Your task to perform on an android device: What's the weather going to be this weekend? Image 0: 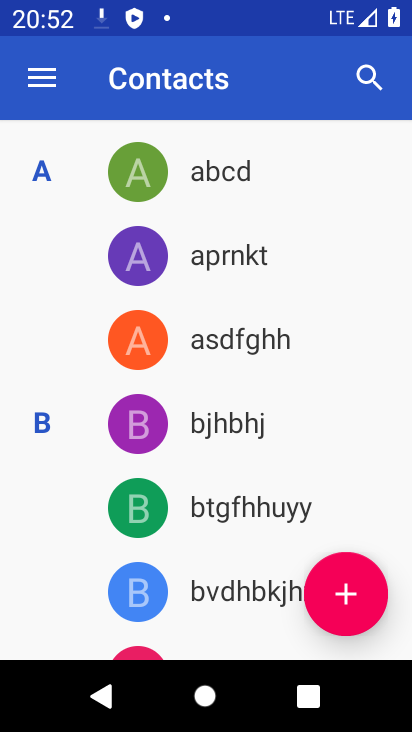
Step 0: press back button
Your task to perform on an android device: What's the weather going to be this weekend? Image 1: 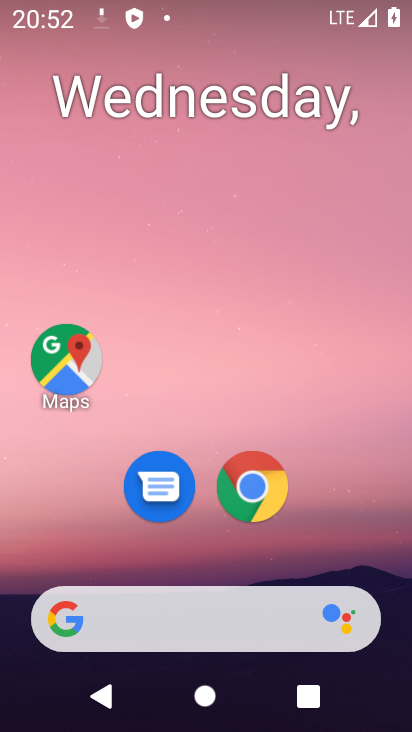
Step 1: click (177, 623)
Your task to perform on an android device: What's the weather going to be this weekend? Image 2: 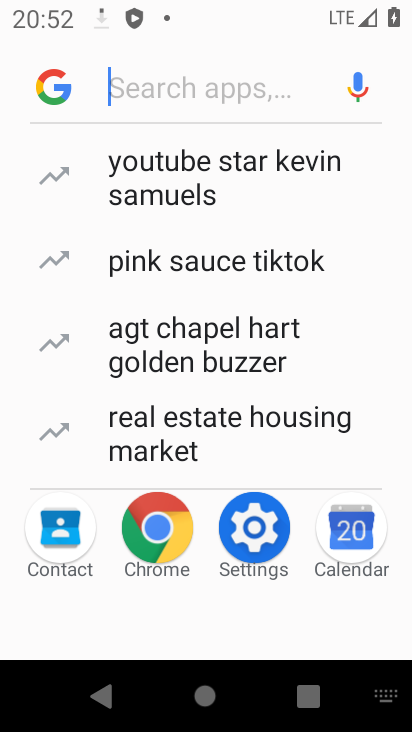
Step 2: click (167, 98)
Your task to perform on an android device: What's the weather going to be this weekend? Image 3: 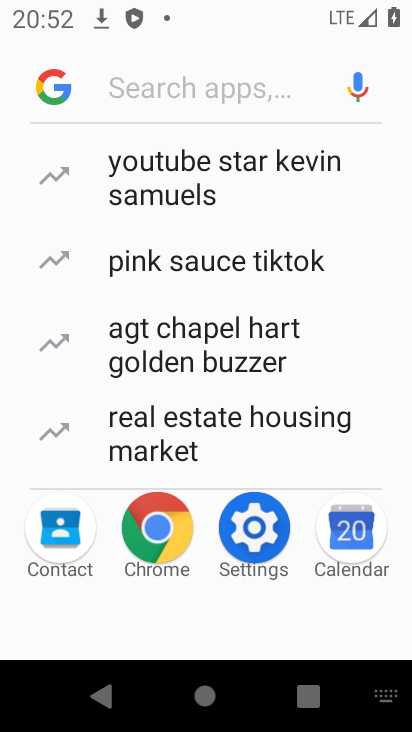
Step 3: type "weather"
Your task to perform on an android device: What's the weather going to be this weekend? Image 4: 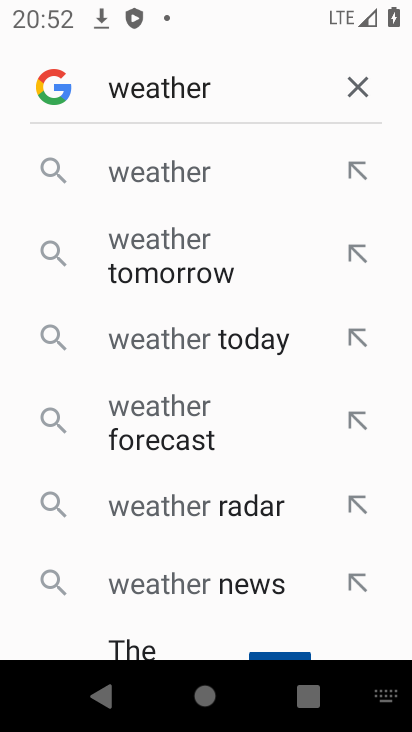
Step 4: click (200, 164)
Your task to perform on an android device: What's the weather going to be this weekend? Image 5: 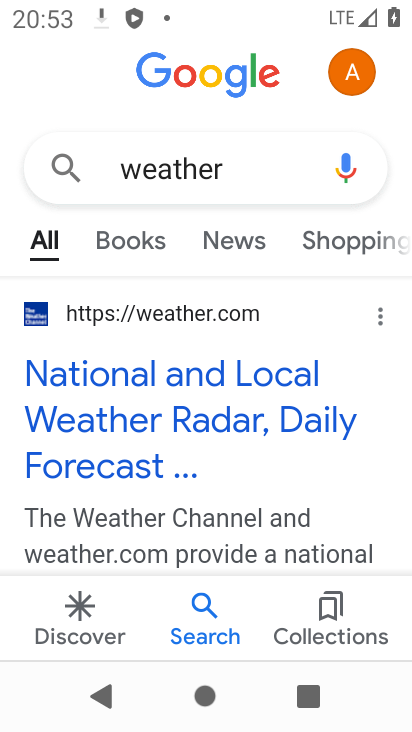
Step 5: drag from (226, 523) to (226, 454)
Your task to perform on an android device: What's the weather going to be this weekend? Image 6: 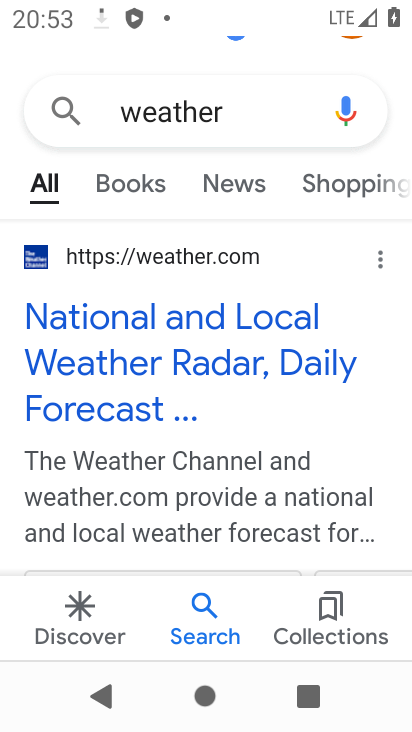
Step 6: click (165, 330)
Your task to perform on an android device: What's the weather going to be this weekend? Image 7: 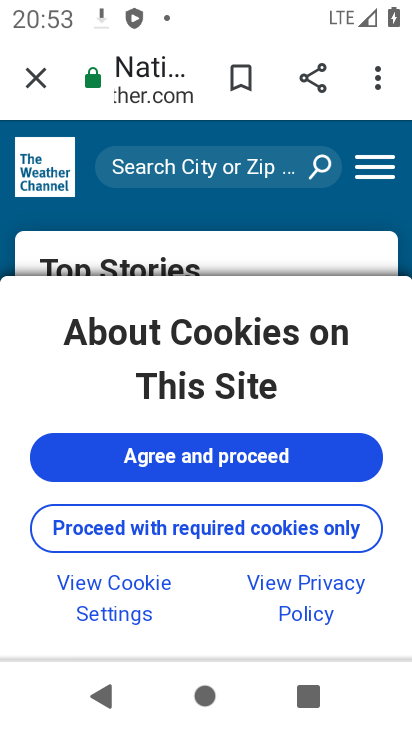
Step 7: click (276, 466)
Your task to perform on an android device: What's the weather going to be this weekend? Image 8: 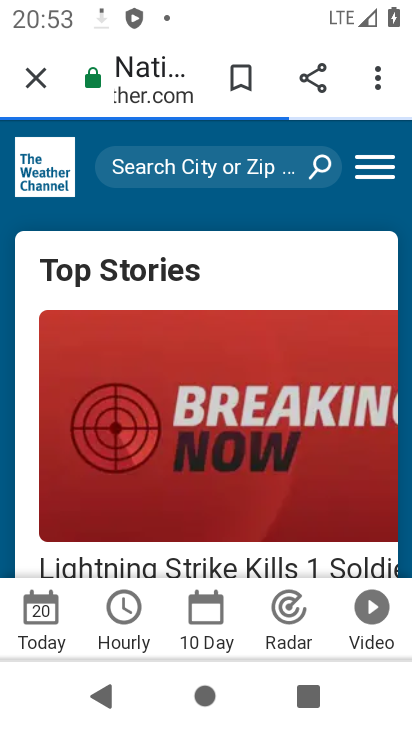
Step 8: drag from (190, 541) to (243, 37)
Your task to perform on an android device: What's the weather going to be this weekend? Image 9: 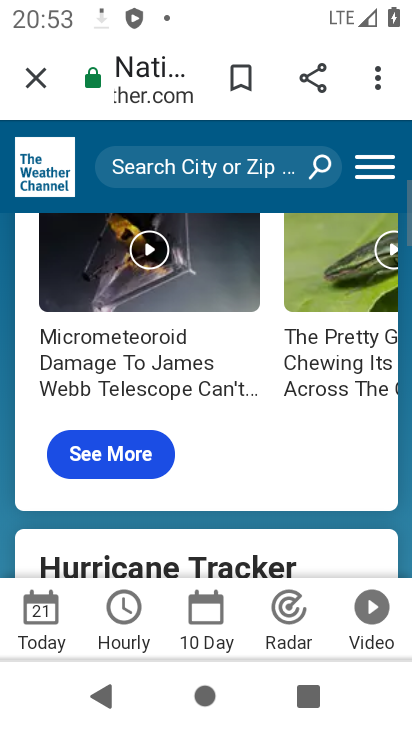
Step 9: drag from (170, 490) to (232, 8)
Your task to perform on an android device: What's the weather going to be this weekend? Image 10: 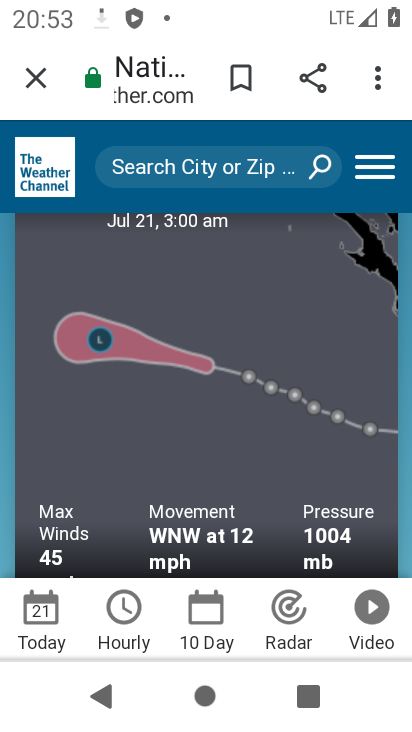
Step 10: click (37, 71)
Your task to perform on an android device: What's the weather going to be this weekend? Image 11: 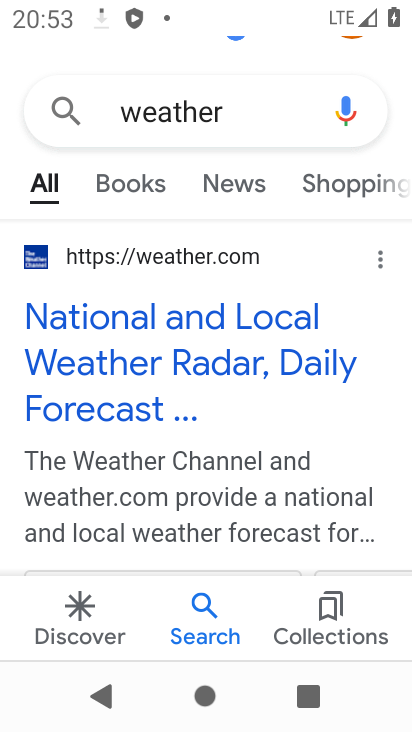
Step 11: click (298, 115)
Your task to perform on an android device: What's the weather going to be this weekend? Image 12: 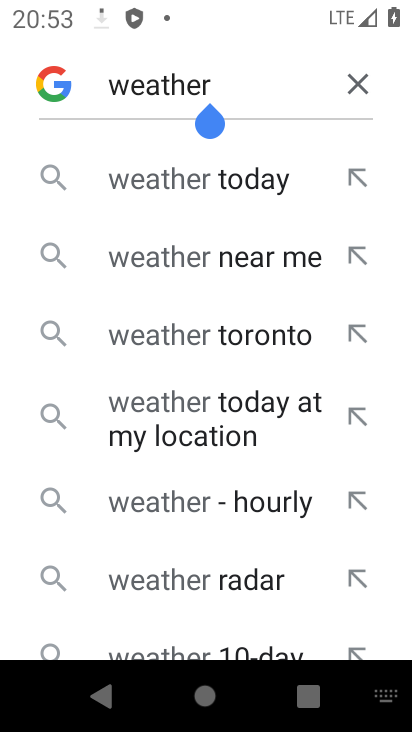
Step 12: click (253, 165)
Your task to perform on an android device: What's the weather going to be this weekend? Image 13: 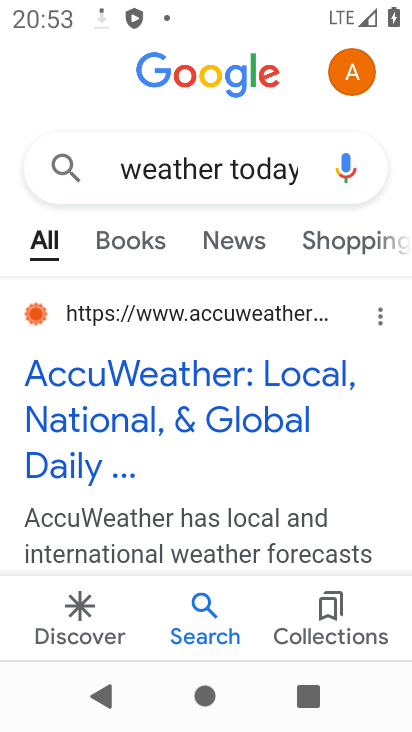
Step 13: click (142, 406)
Your task to perform on an android device: What's the weather going to be this weekend? Image 14: 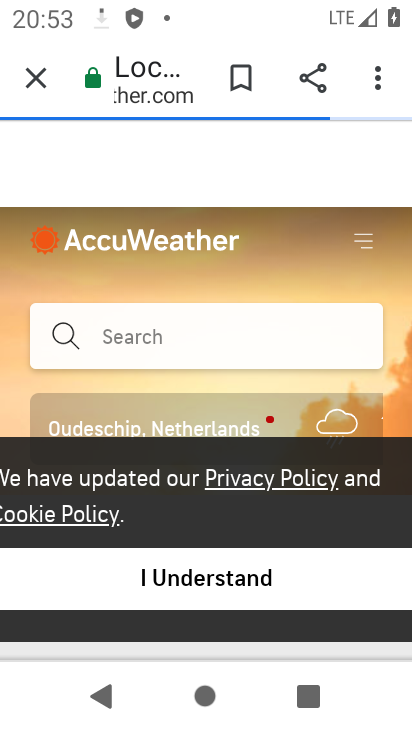
Step 14: task complete